Your task to perform on an android device: Go to Amazon Image 0: 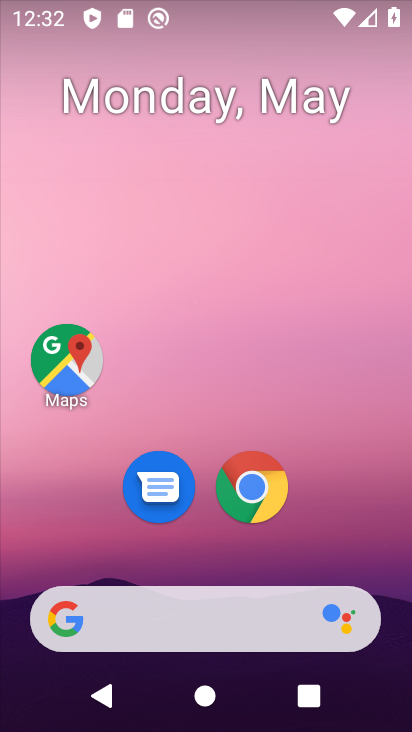
Step 0: click (237, 500)
Your task to perform on an android device: Go to Amazon Image 1: 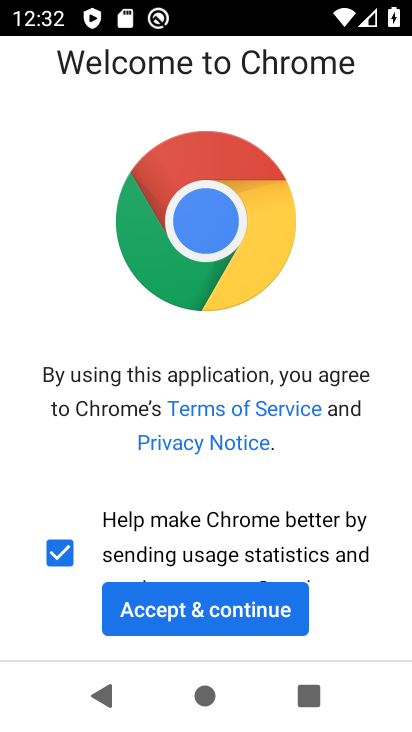
Step 1: click (197, 606)
Your task to perform on an android device: Go to Amazon Image 2: 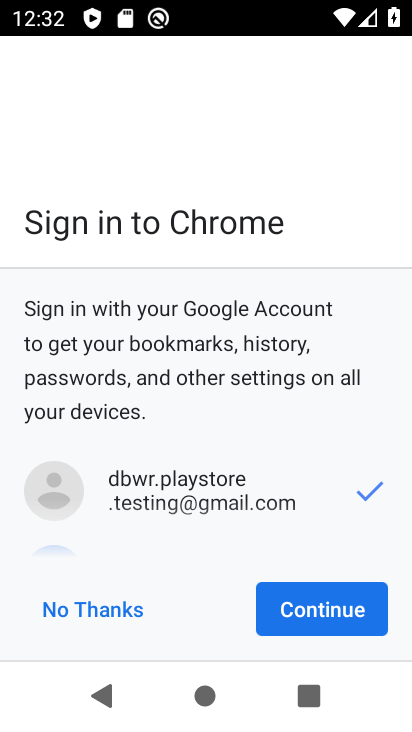
Step 2: click (343, 624)
Your task to perform on an android device: Go to Amazon Image 3: 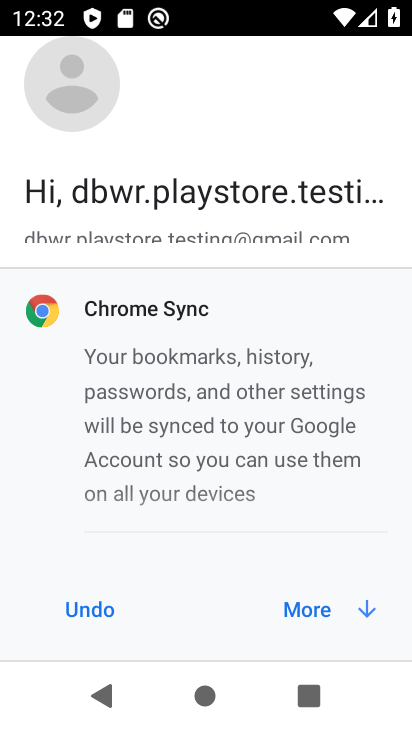
Step 3: click (318, 610)
Your task to perform on an android device: Go to Amazon Image 4: 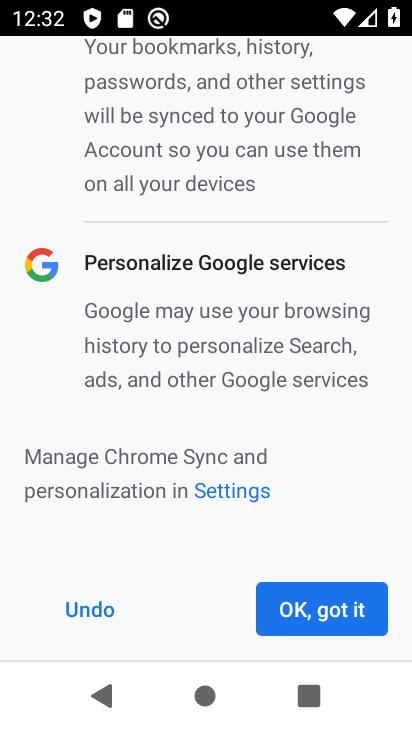
Step 4: click (318, 610)
Your task to perform on an android device: Go to Amazon Image 5: 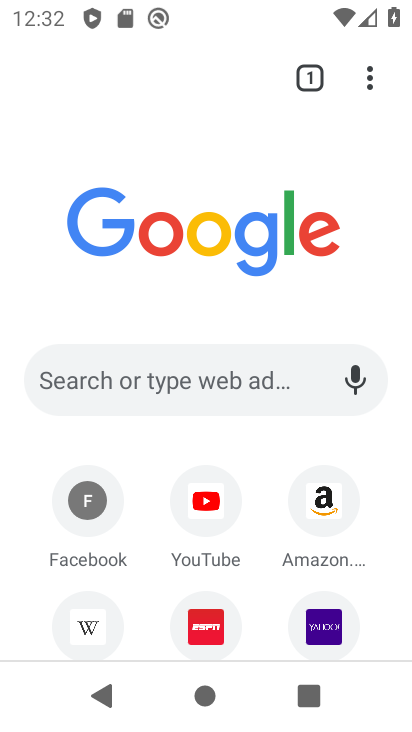
Step 5: click (304, 515)
Your task to perform on an android device: Go to Amazon Image 6: 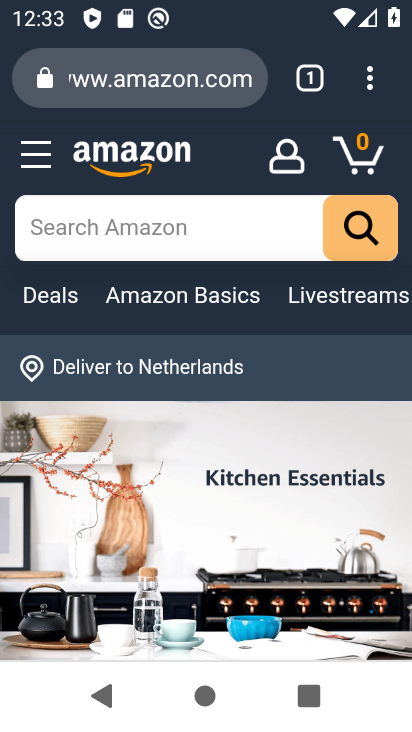
Step 6: task complete